Your task to perform on an android device: Show the shopping cart on costco. Image 0: 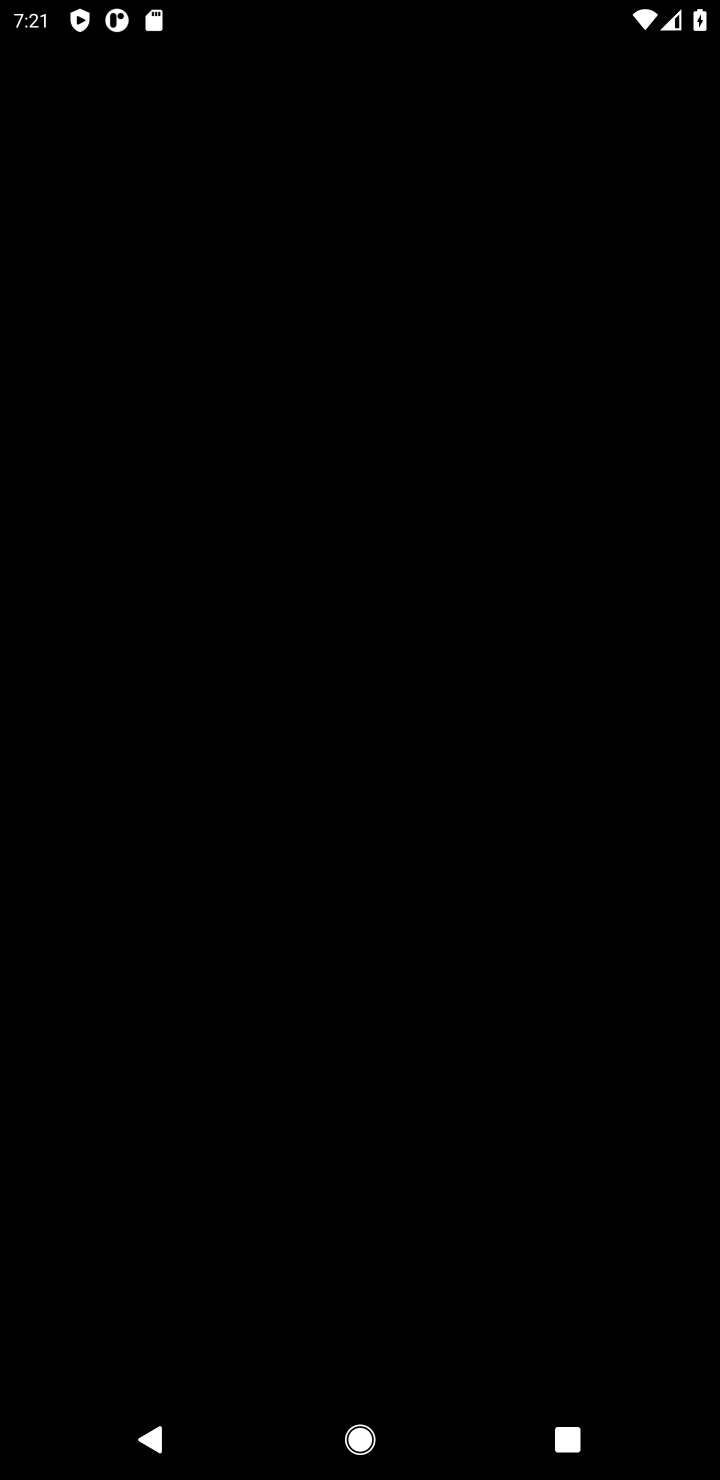
Step 0: press home button
Your task to perform on an android device: Show the shopping cart on costco. Image 1: 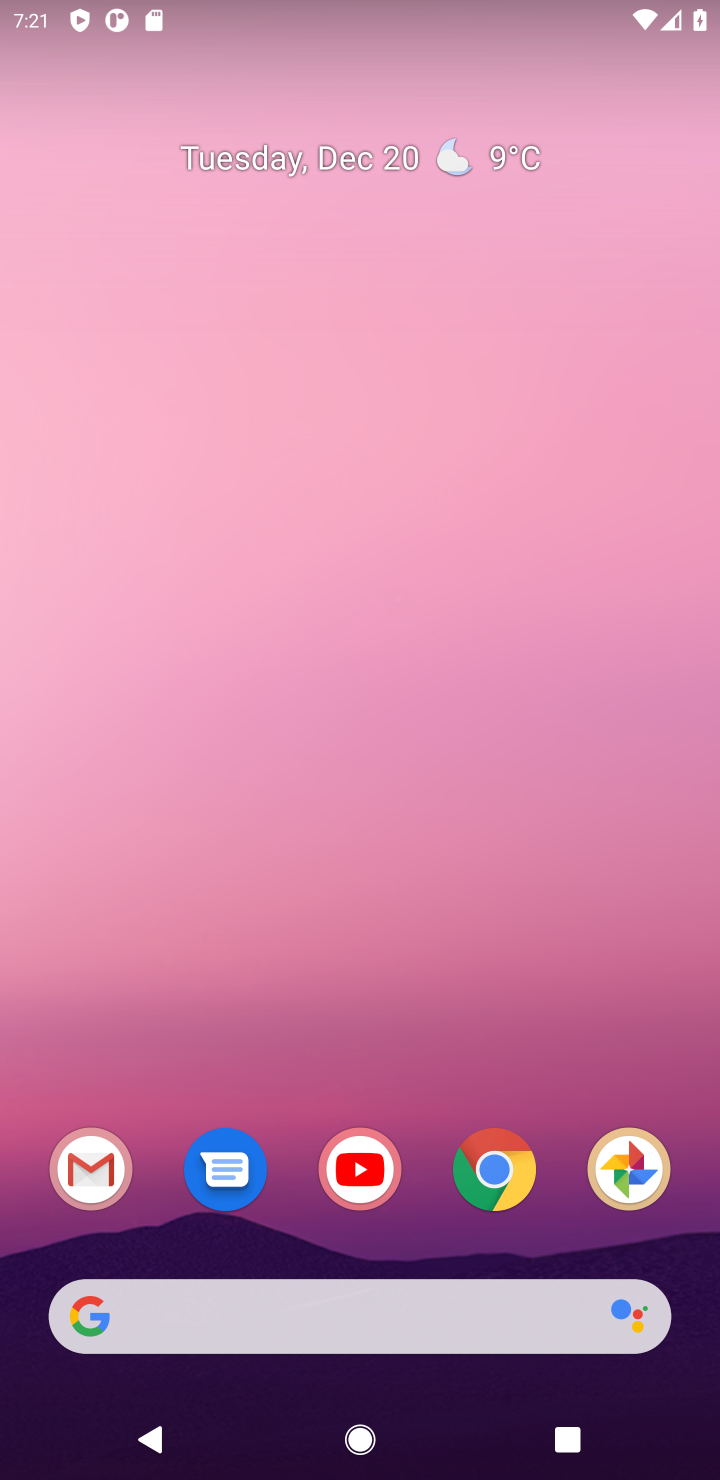
Step 1: click (504, 1185)
Your task to perform on an android device: Show the shopping cart on costco. Image 2: 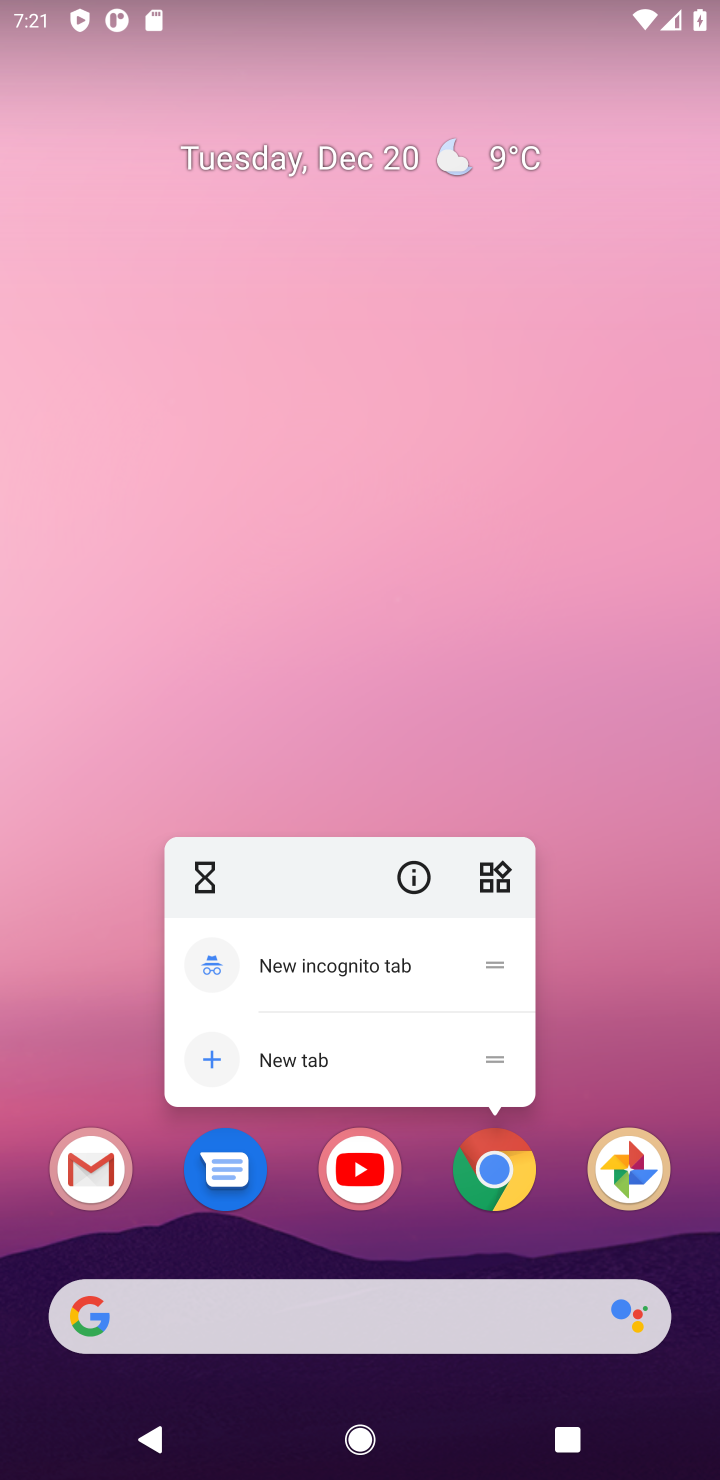
Step 2: click (504, 1185)
Your task to perform on an android device: Show the shopping cart on costco. Image 3: 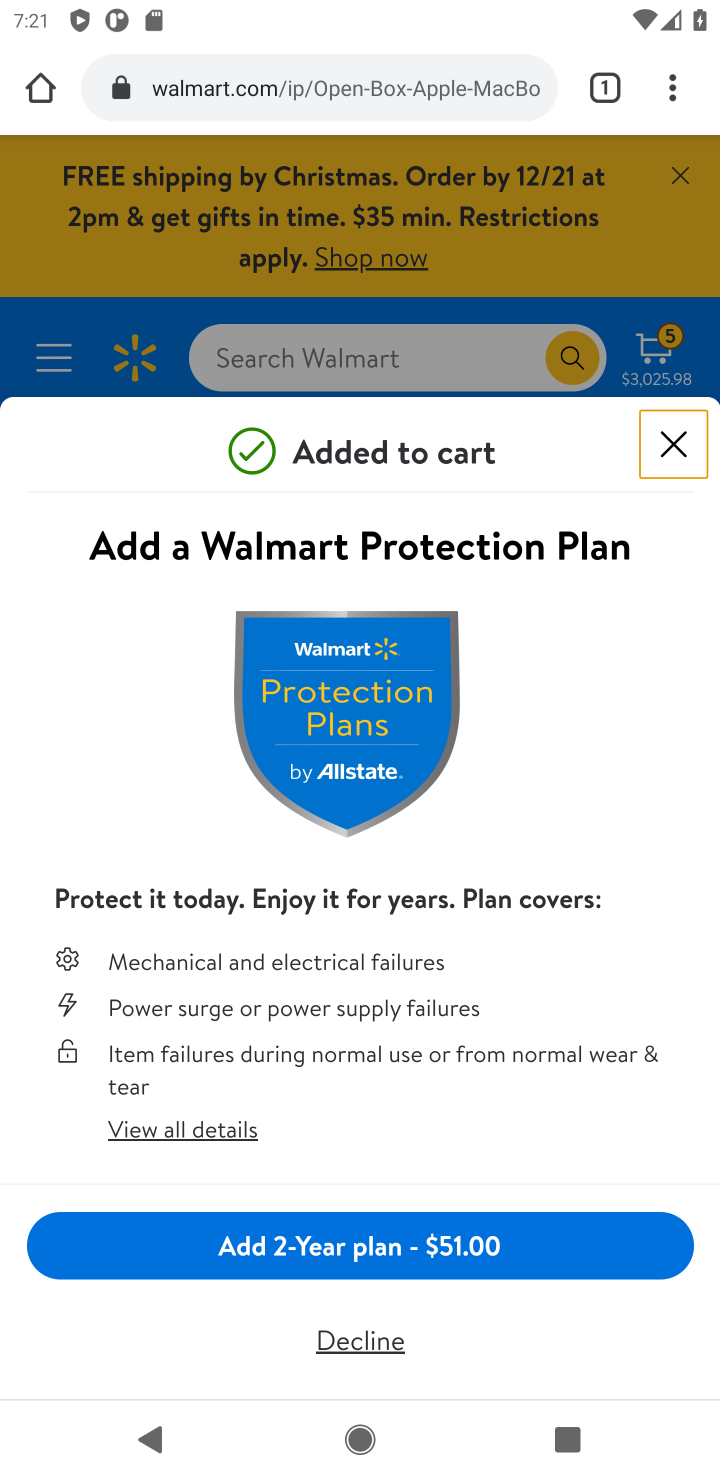
Step 3: click (652, 459)
Your task to perform on an android device: Show the shopping cart on costco. Image 4: 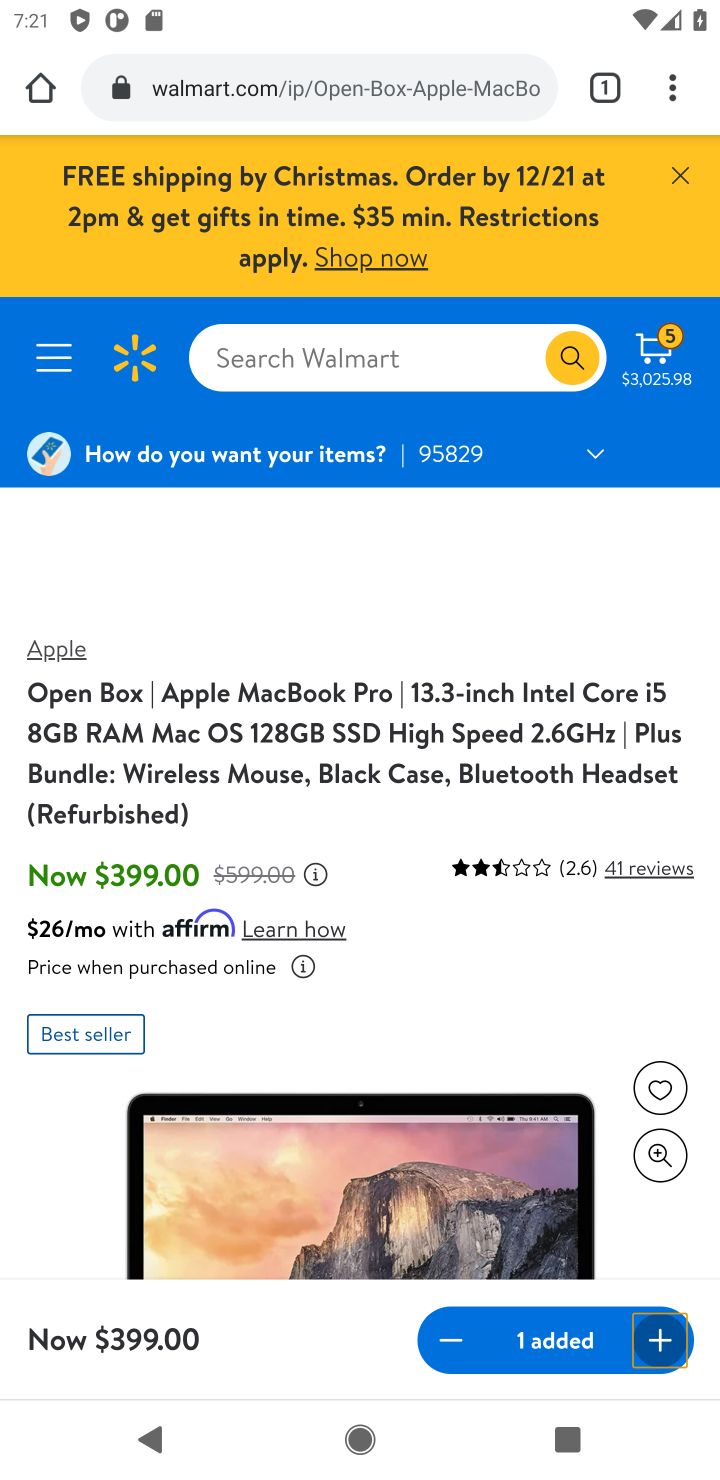
Step 4: click (384, 73)
Your task to perform on an android device: Show the shopping cart on costco. Image 5: 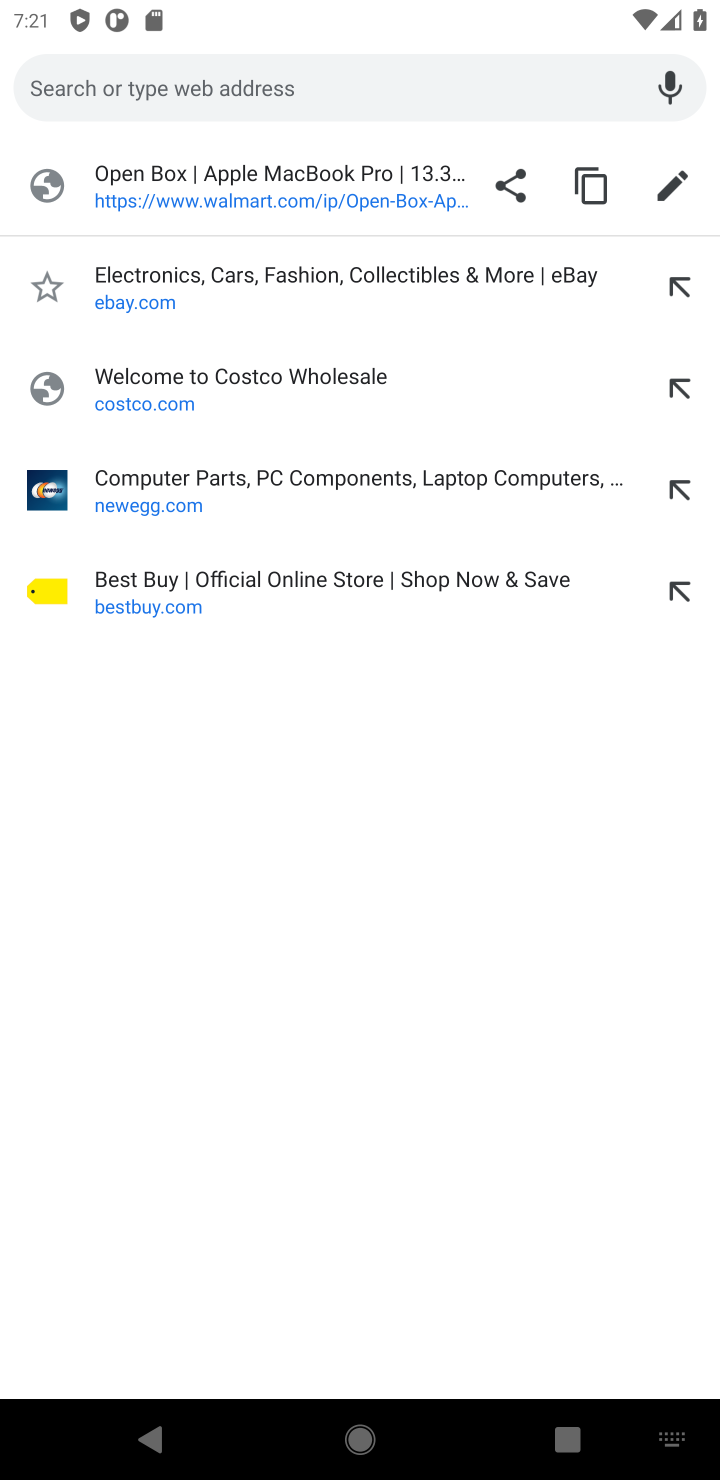
Step 5: type "cost"
Your task to perform on an android device: Show the shopping cart on costco. Image 6: 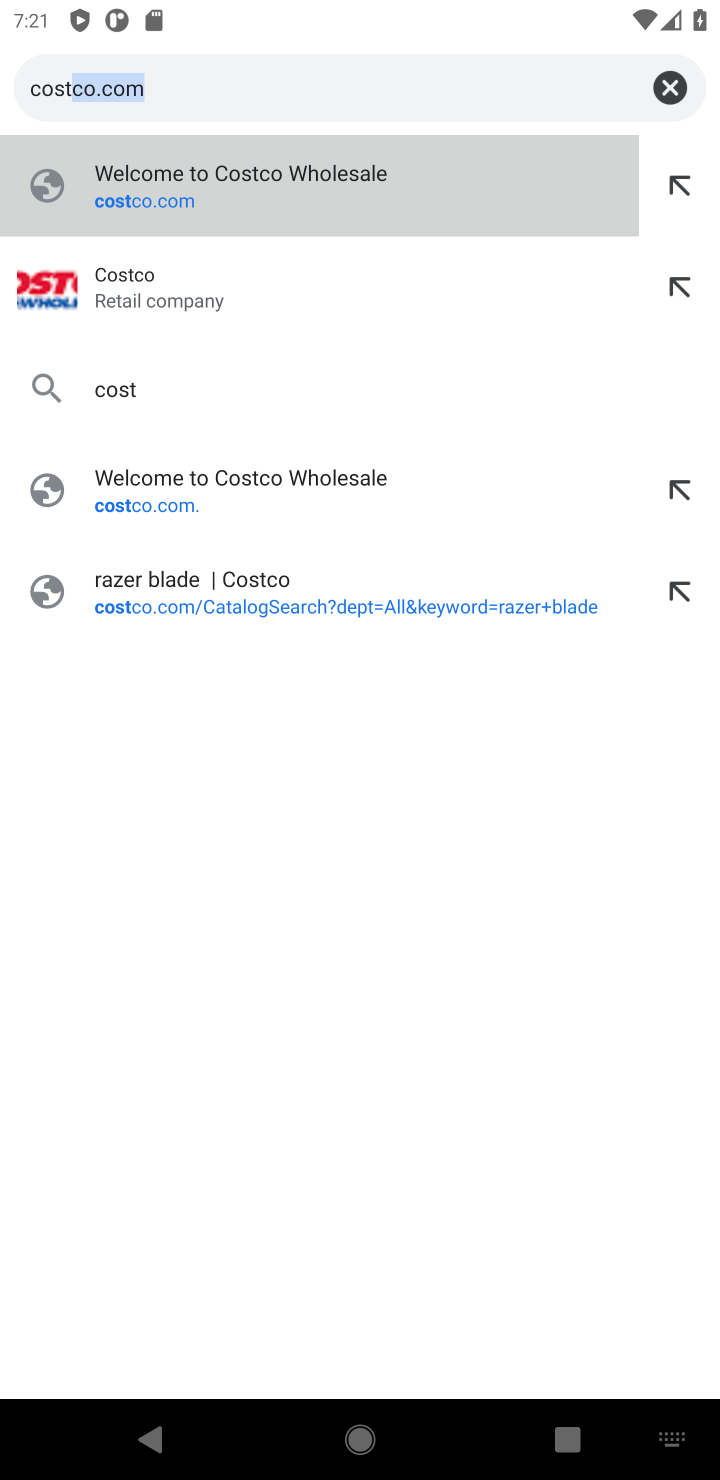
Step 6: click (272, 267)
Your task to perform on an android device: Show the shopping cart on costco. Image 7: 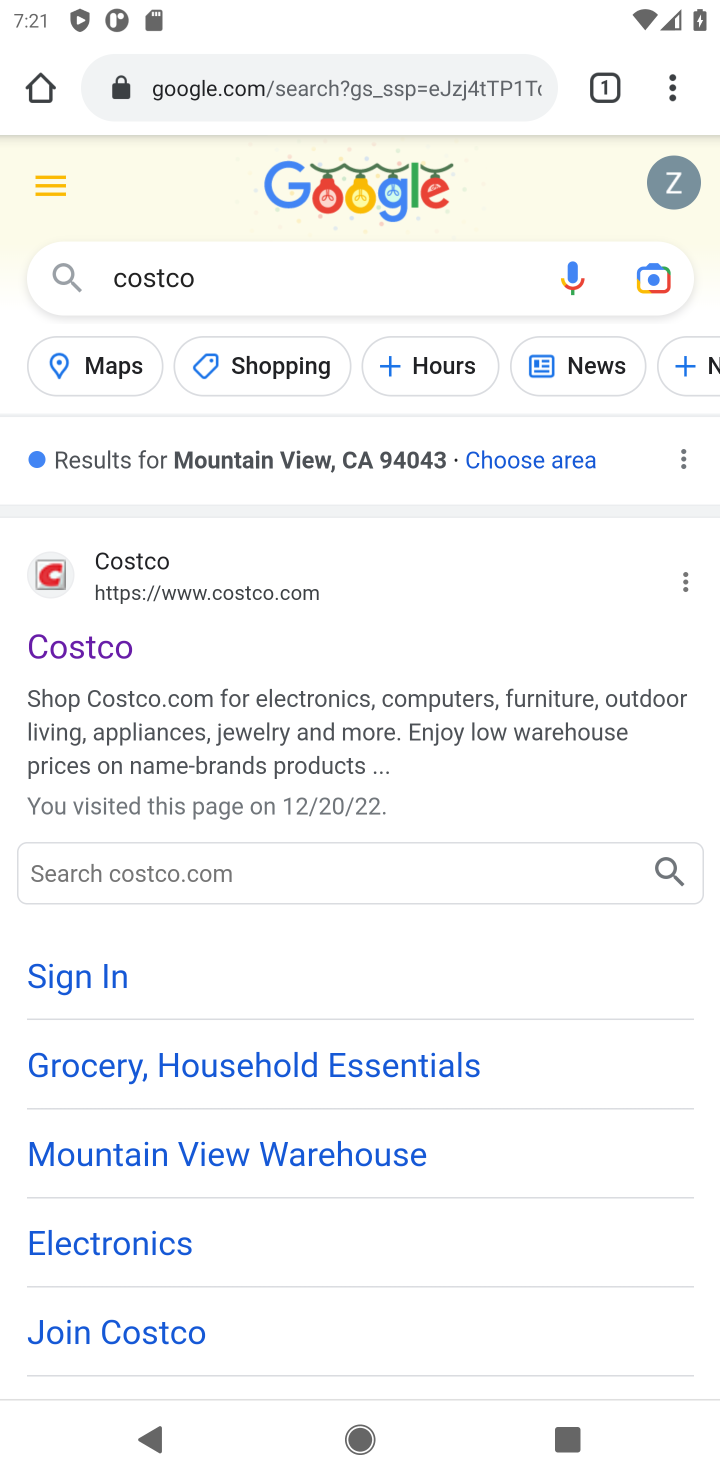
Step 7: click (69, 659)
Your task to perform on an android device: Show the shopping cart on costco. Image 8: 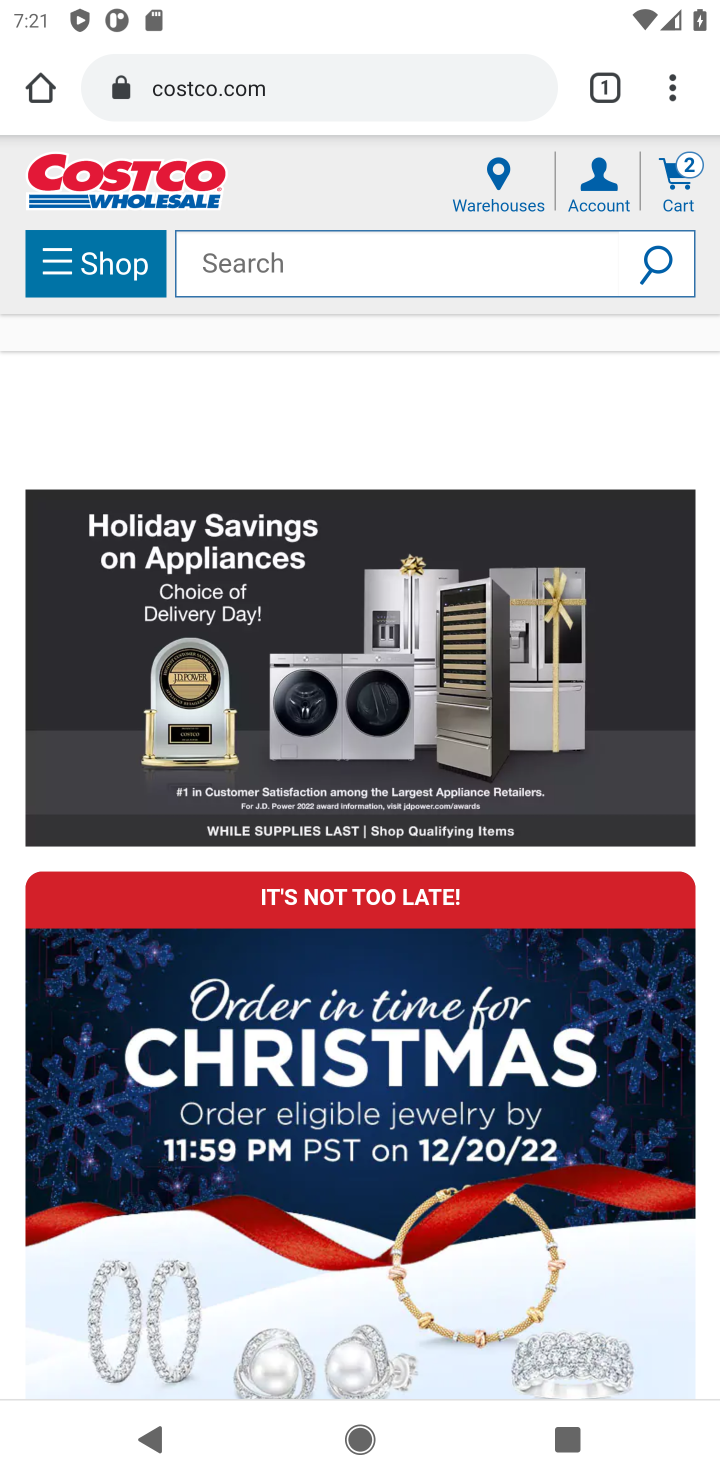
Step 8: click (414, 259)
Your task to perform on an android device: Show the shopping cart on costco. Image 9: 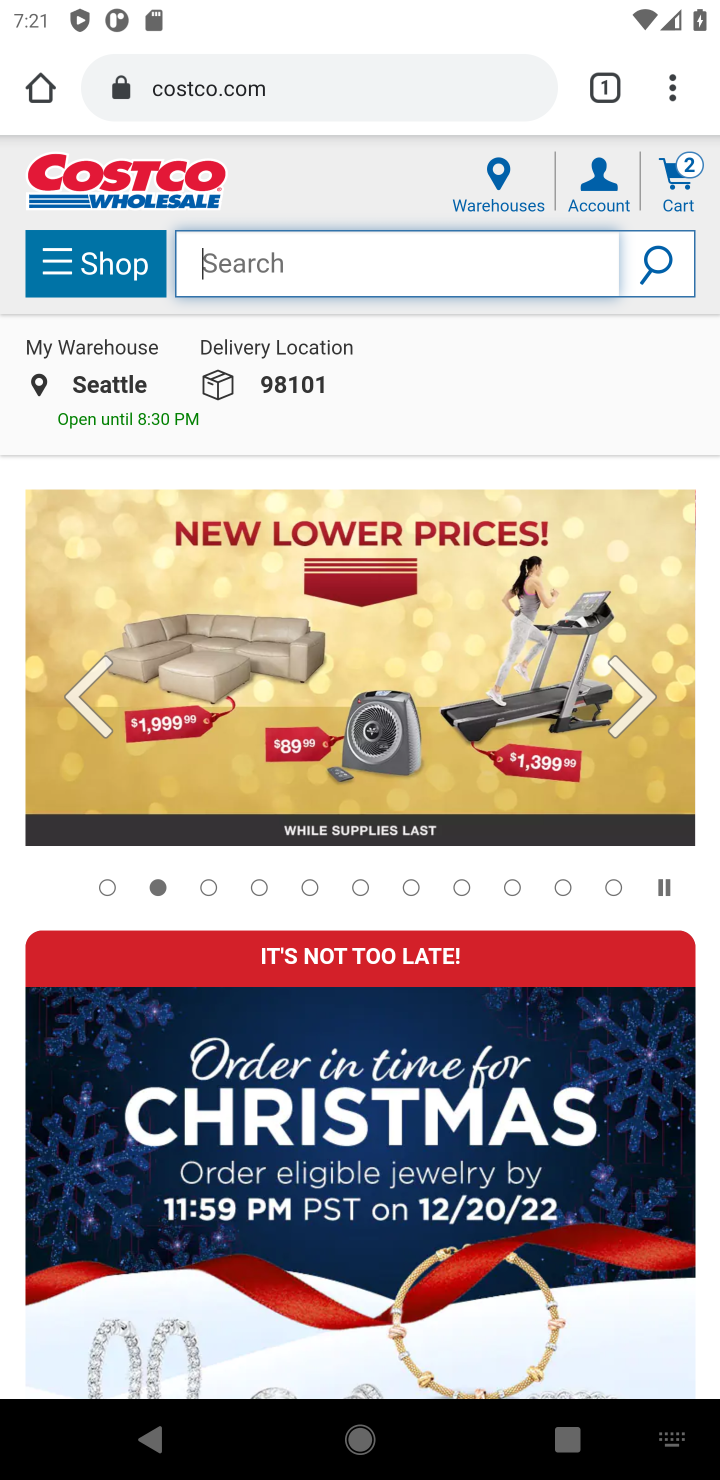
Step 9: click (685, 171)
Your task to perform on an android device: Show the shopping cart on costco. Image 10: 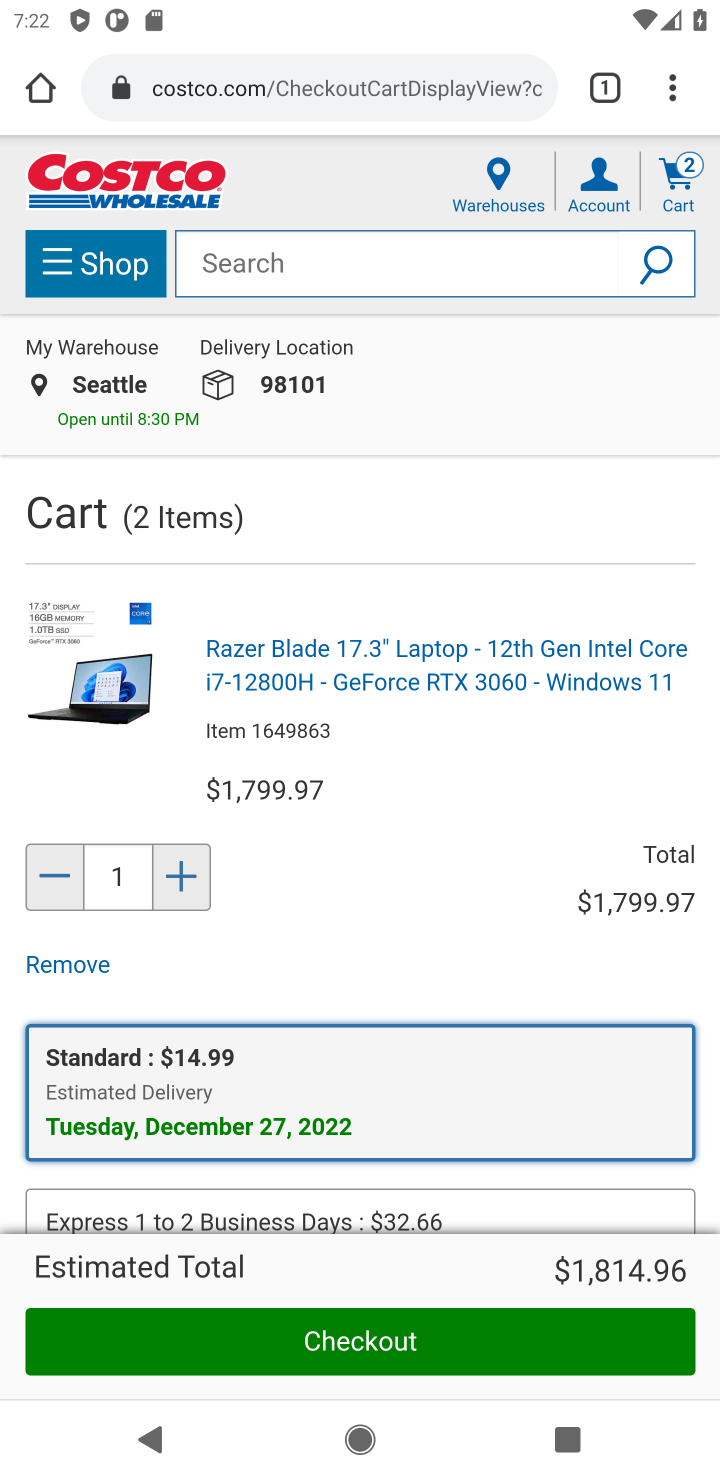
Step 10: task complete